Your task to perform on an android device: open a bookmark in the chrome app Image 0: 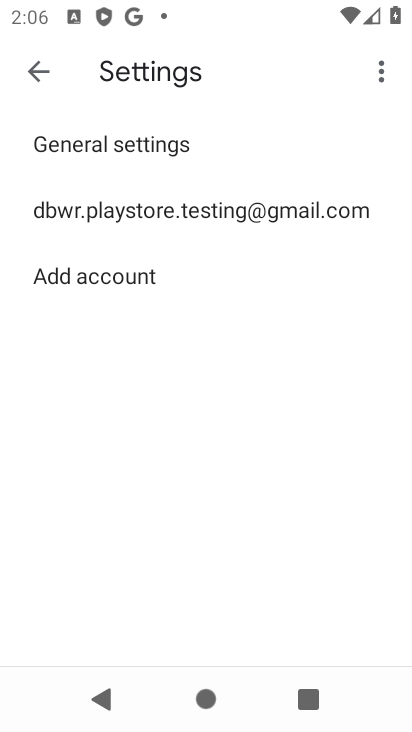
Step 0: press home button
Your task to perform on an android device: open a bookmark in the chrome app Image 1: 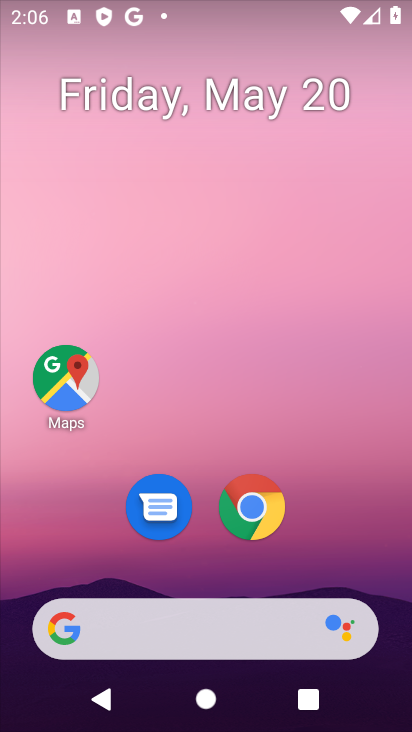
Step 1: click (270, 505)
Your task to perform on an android device: open a bookmark in the chrome app Image 2: 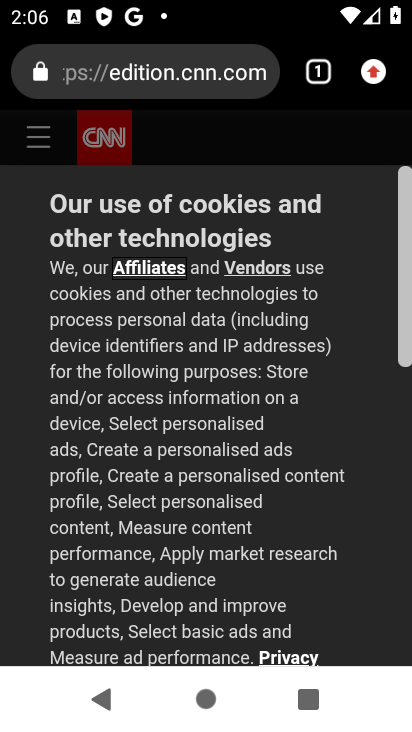
Step 2: click (377, 66)
Your task to perform on an android device: open a bookmark in the chrome app Image 3: 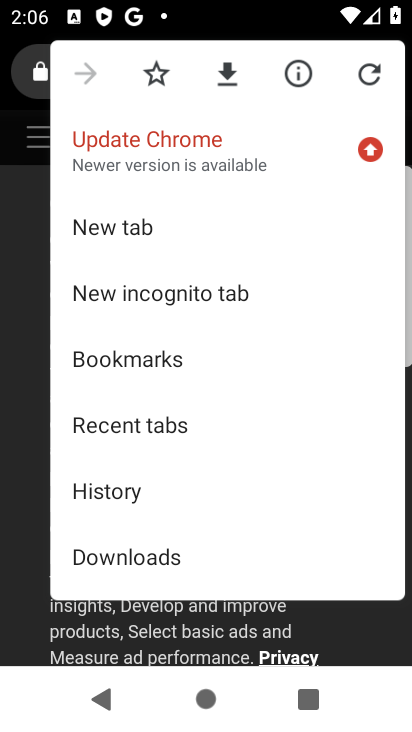
Step 3: click (128, 380)
Your task to perform on an android device: open a bookmark in the chrome app Image 4: 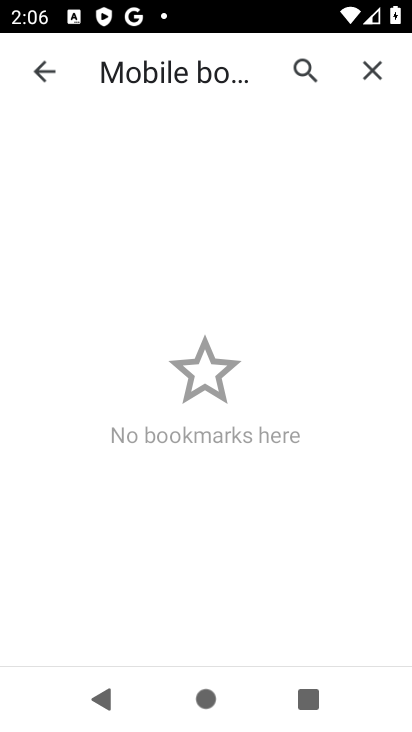
Step 4: task complete